Your task to perform on an android device: Go to network settings Image 0: 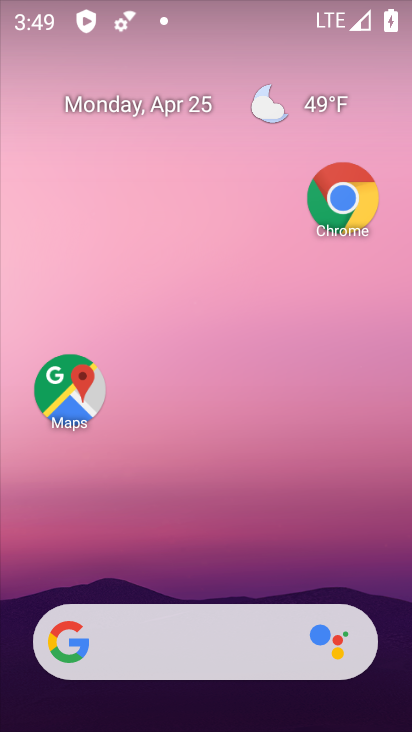
Step 0: drag from (145, 673) to (319, 133)
Your task to perform on an android device: Go to network settings Image 1: 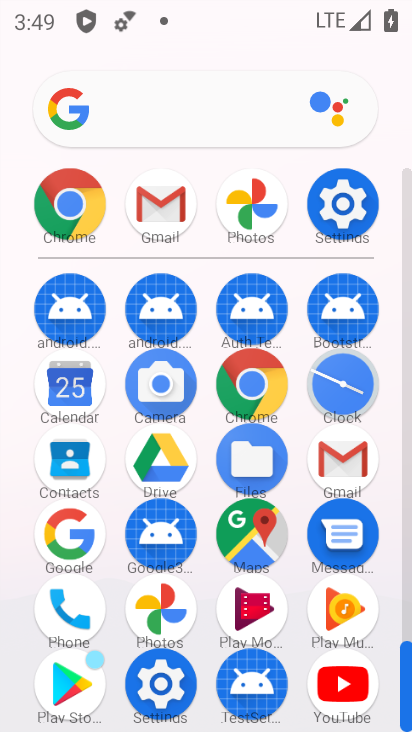
Step 1: click (342, 217)
Your task to perform on an android device: Go to network settings Image 2: 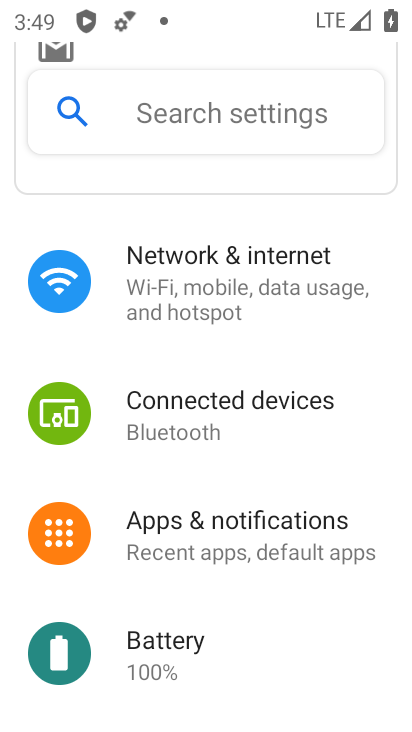
Step 2: click (257, 254)
Your task to perform on an android device: Go to network settings Image 3: 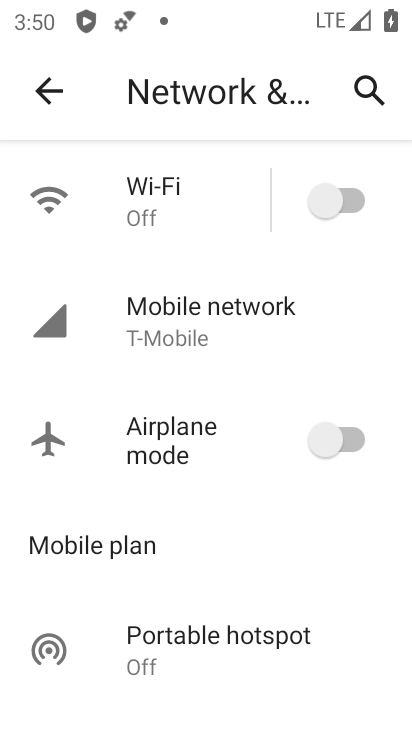
Step 3: task complete